Your task to perform on an android device: What's the top post on reddit? Image 0: 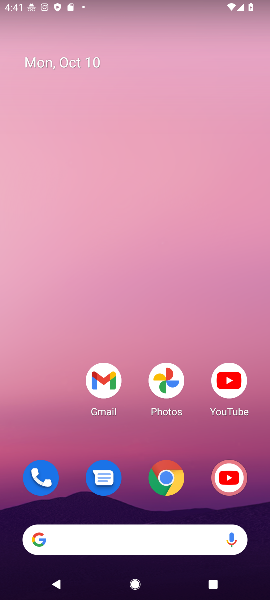
Step 0: click (171, 472)
Your task to perform on an android device: What's the top post on reddit? Image 1: 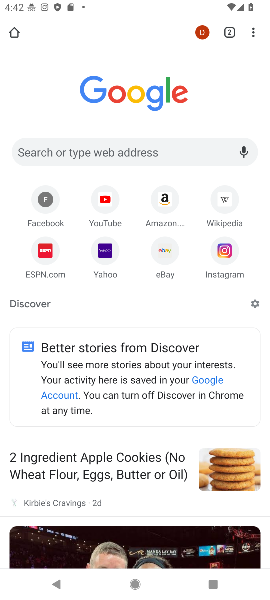
Step 1: click (85, 150)
Your task to perform on an android device: What's the top post on reddit? Image 2: 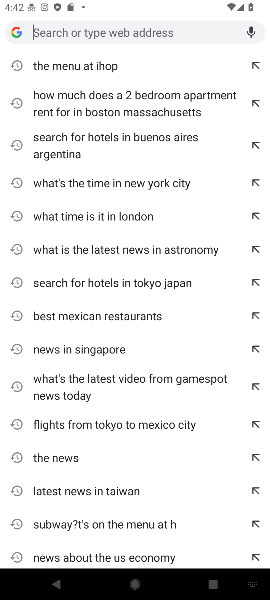
Step 2: type "What's the top post on reddit?"
Your task to perform on an android device: What's the top post on reddit? Image 3: 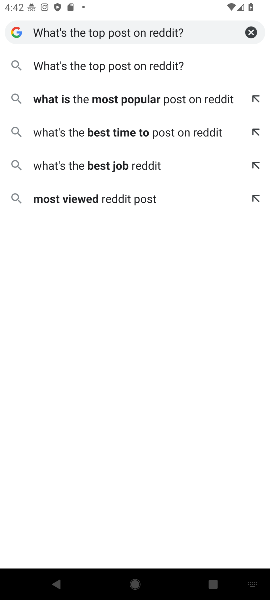
Step 3: click (112, 62)
Your task to perform on an android device: What's the top post on reddit? Image 4: 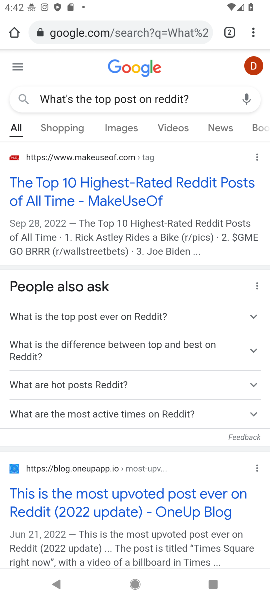
Step 4: click (123, 197)
Your task to perform on an android device: What's the top post on reddit? Image 5: 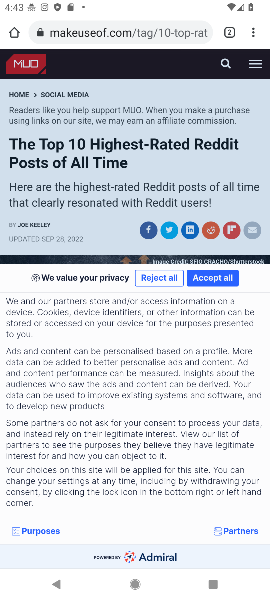
Step 5: click (200, 279)
Your task to perform on an android device: What's the top post on reddit? Image 6: 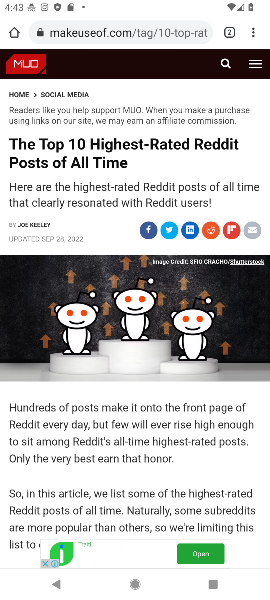
Step 6: task complete